Your task to perform on an android device: When is my next appointment? Image 0: 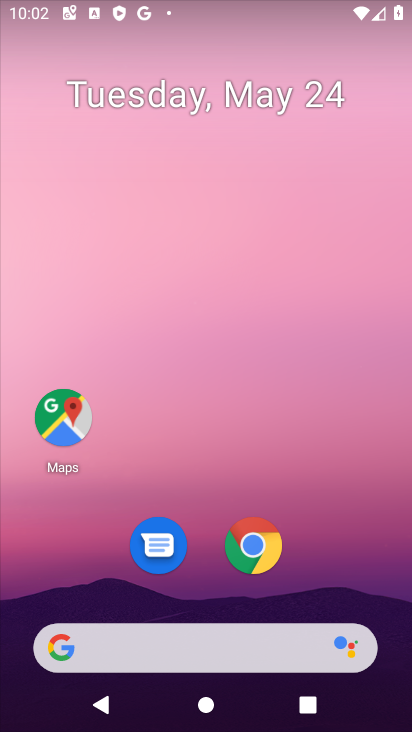
Step 0: drag from (219, 466) to (264, 19)
Your task to perform on an android device: When is my next appointment? Image 1: 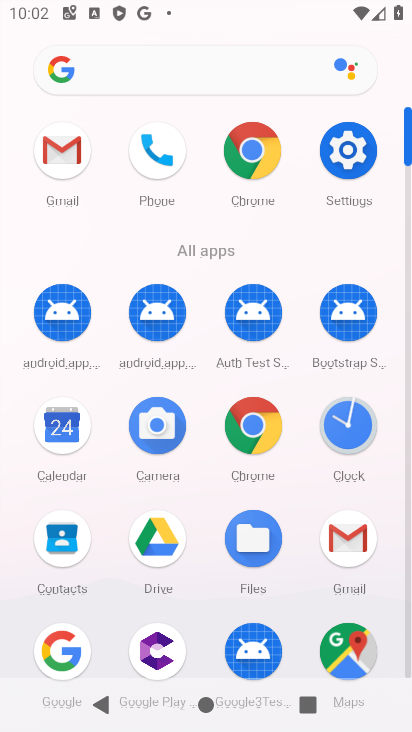
Step 1: click (65, 420)
Your task to perform on an android device: When is my next appointment? Image 2: 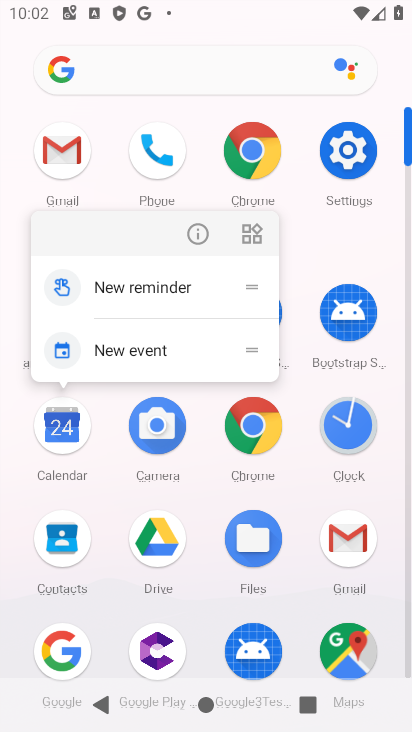
Step 2: click (65, 417)
Your task to perform on an android device: When is my next appointment? Image 3: 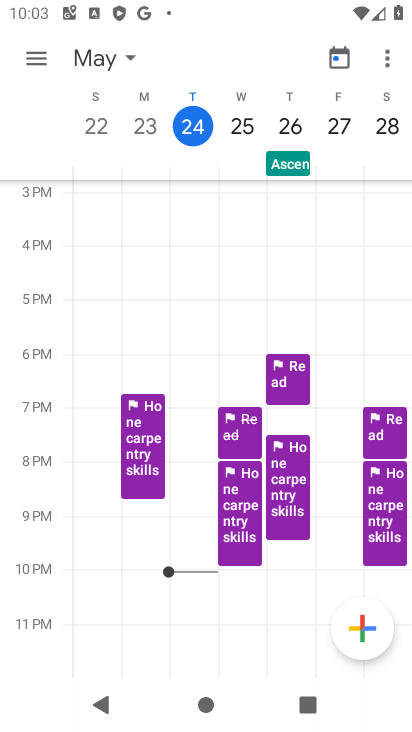
Step 3: click (190, 118)
Your task to perform on an android device: When is my next appointment? Image 4: 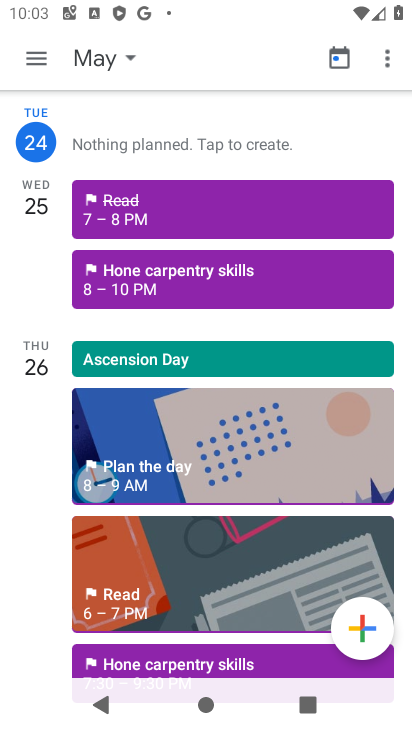
Step 4: task complete